Your task to perform on an android device: Open settings Image 0: 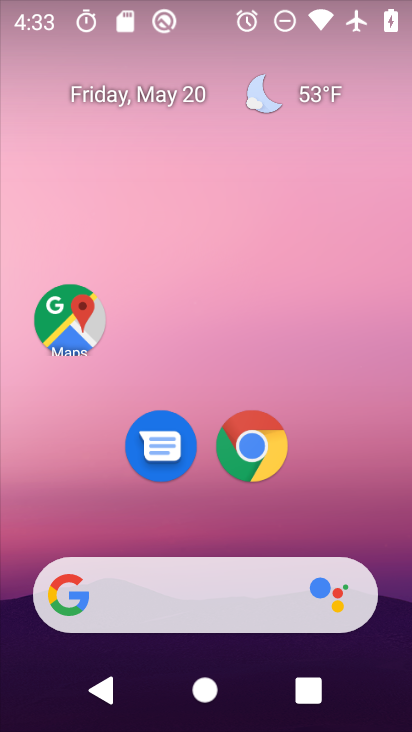
Step 0: drag from (367, 511) to (400, 108)
Your task to perform on an android device: Open settings Image 1: 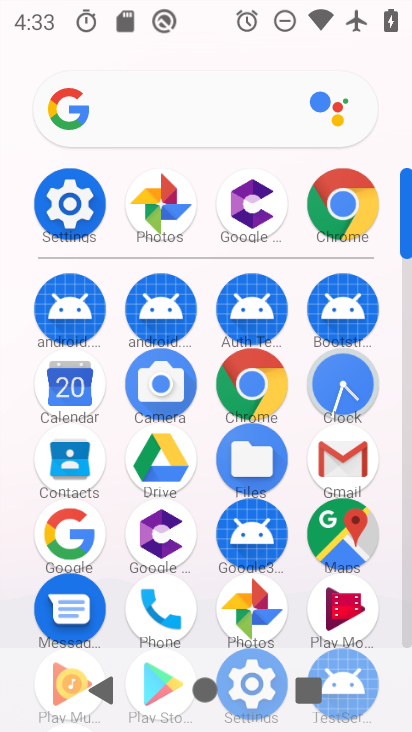
Step 1: click (51, 208)
Your task to perform on an android device: Open settings Image 2: 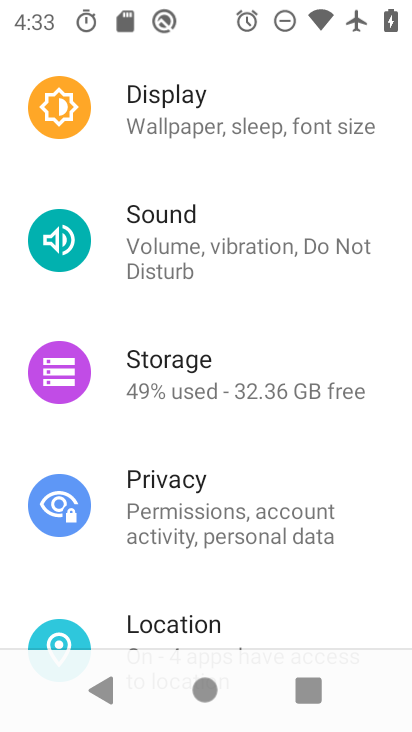
Step 2: task complete